Your task to perform on an android device: remove spam from my inbox in the gmail app Image 0: 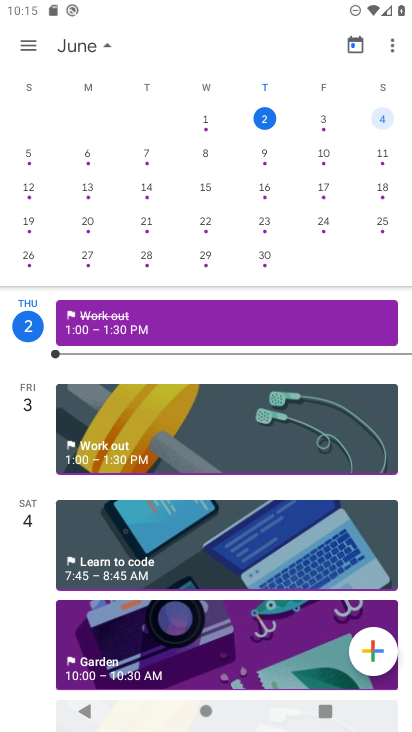
Step 0: press home button
Your task to perform on an android device: remove spam from my inbox in the gmail app Image 1: 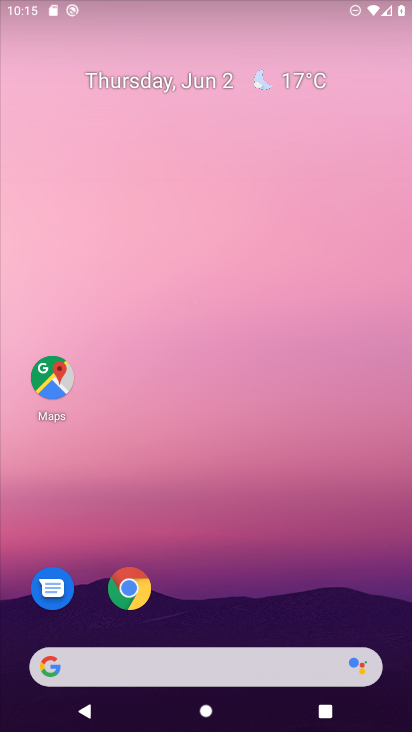
Step 1: drag from (212, 688) to (291, 79)
Your task to perform on an android device: remove spam from my inbox in the gmail app Image 2: 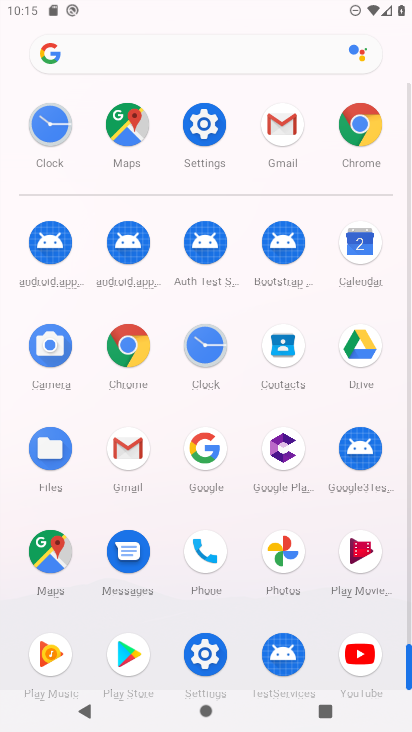
Step 2: click (286, 147)
Your task to perform on an android device: remove spam from my inbox in the gmail app Image 3: 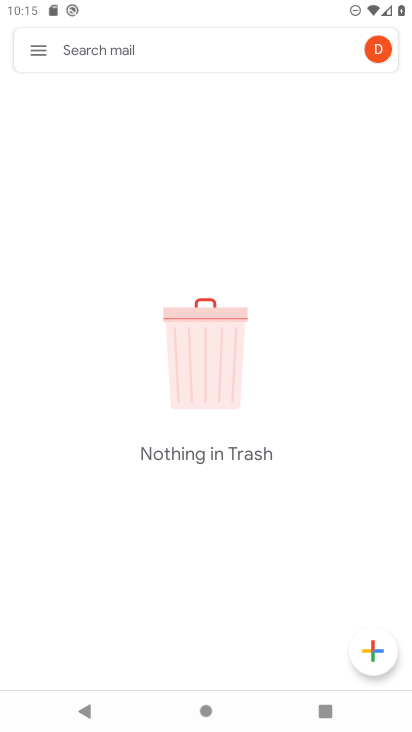
Step 3: click (42, 58)
Your task to perform on an android device: remove spam from my inbox in the gmail app Image 4: 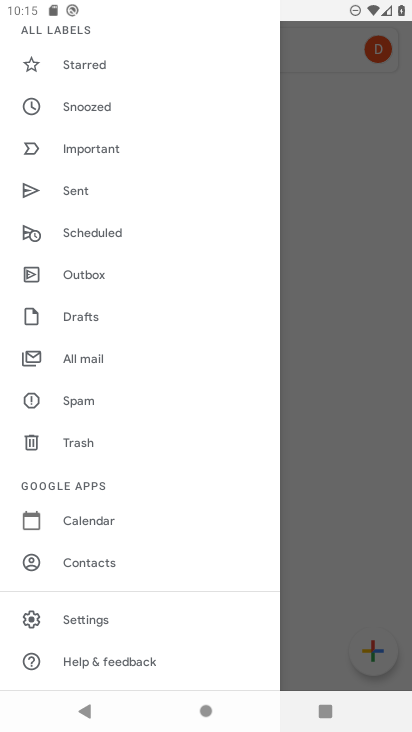
Step 4: drag from (102, 476) to (161, 129)
Your task to perform on an android device: remove spam from my inbox in the gmail app Image 5: 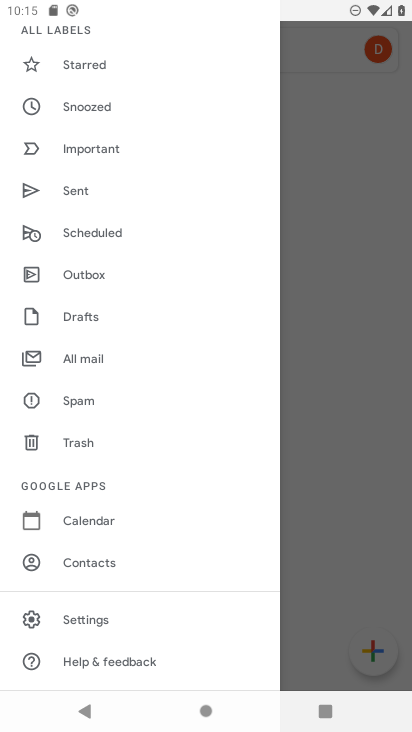
Step 5: click (92, 407)
Your task to perform on an android device: remove spam from my inbox in the gmail app Image 6: 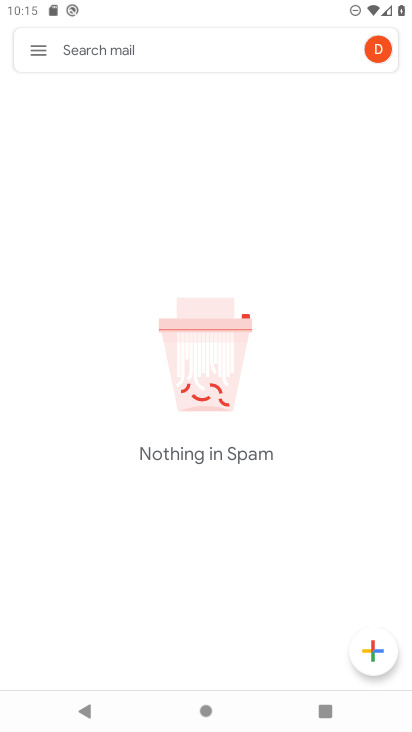
Step 6: task complete